Your task to perform on an android device: uninstall "Paramount+ | Peak Streaming" Image 0: 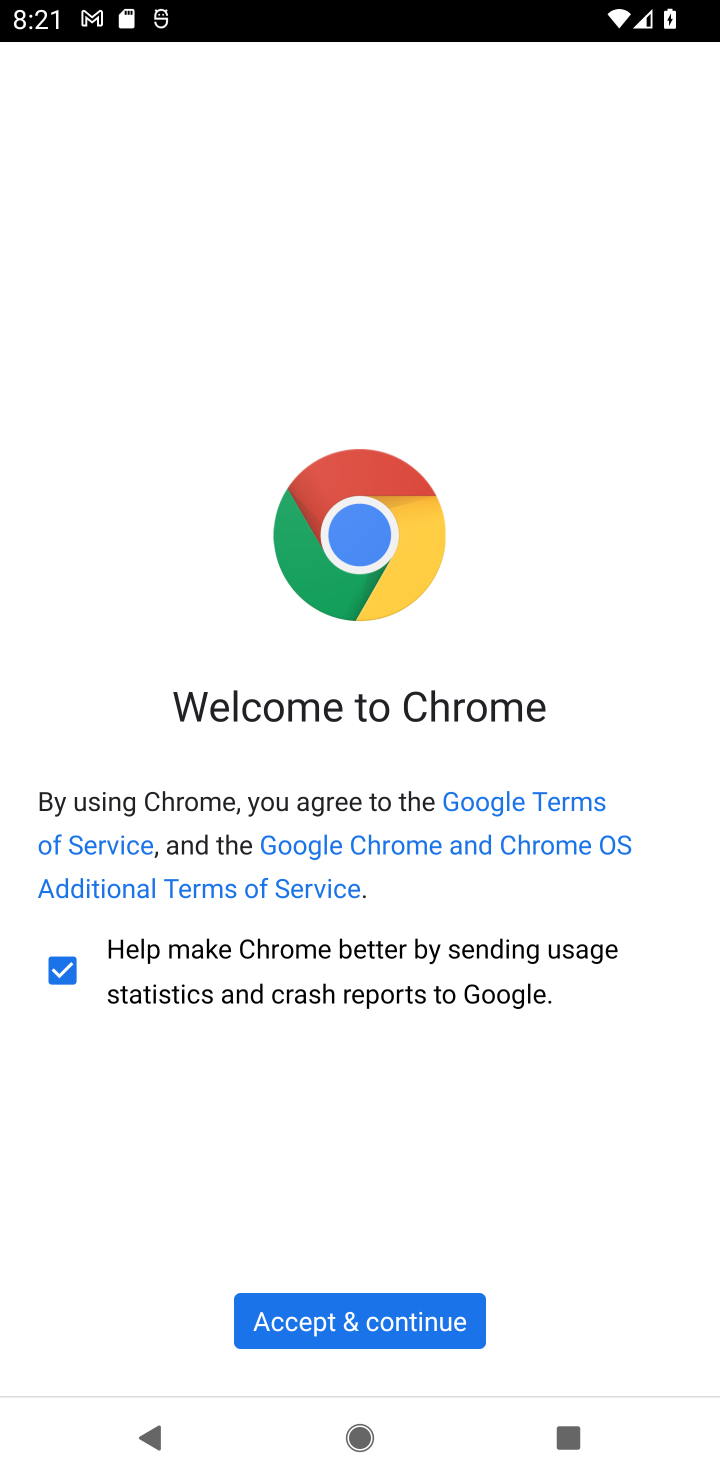
Step 0: press home button
Your task to perform on an android device: uninstall "Paramount+ | Peak Streaming" Image 1: 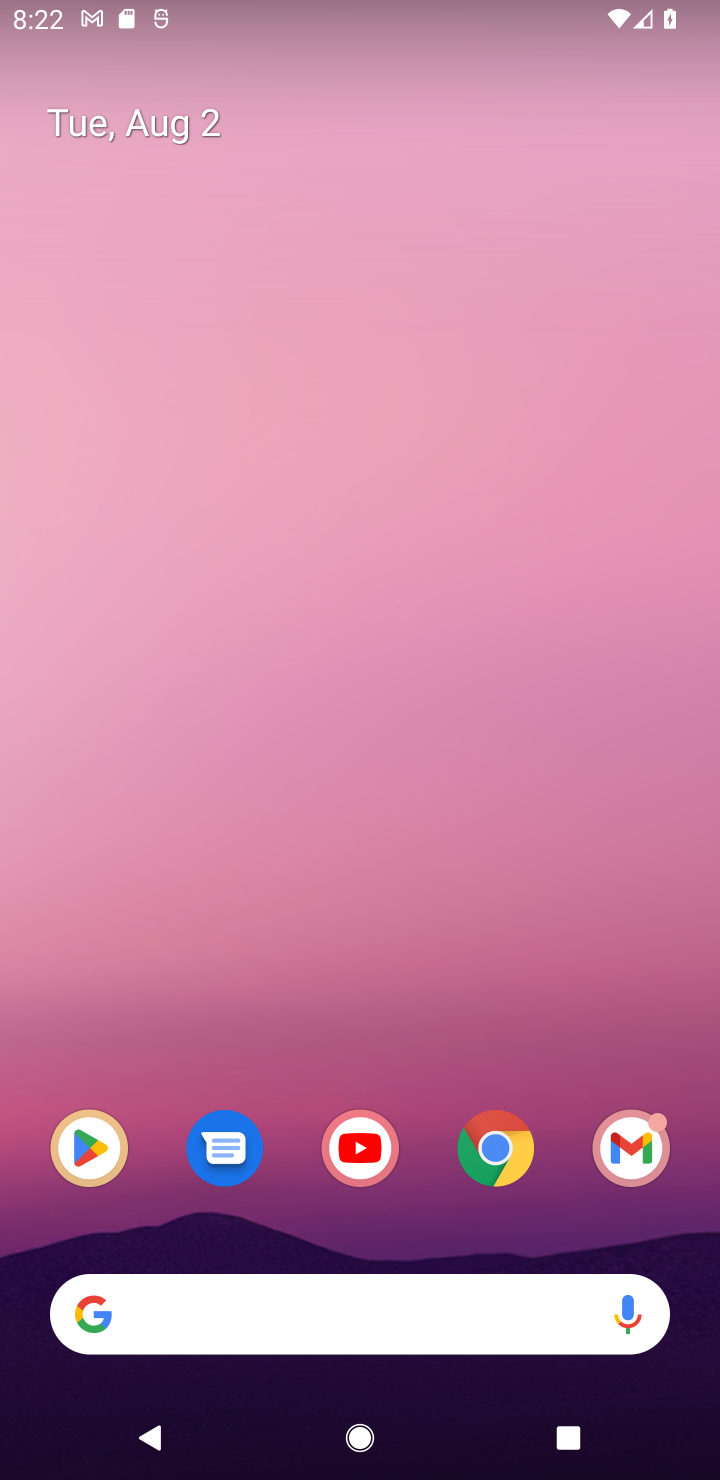
Step 1: drag from (536, 876) to (289, 0)
Your task to perform on an android device: uninstall "Paramount+ | Peak Streaming" Image 2: 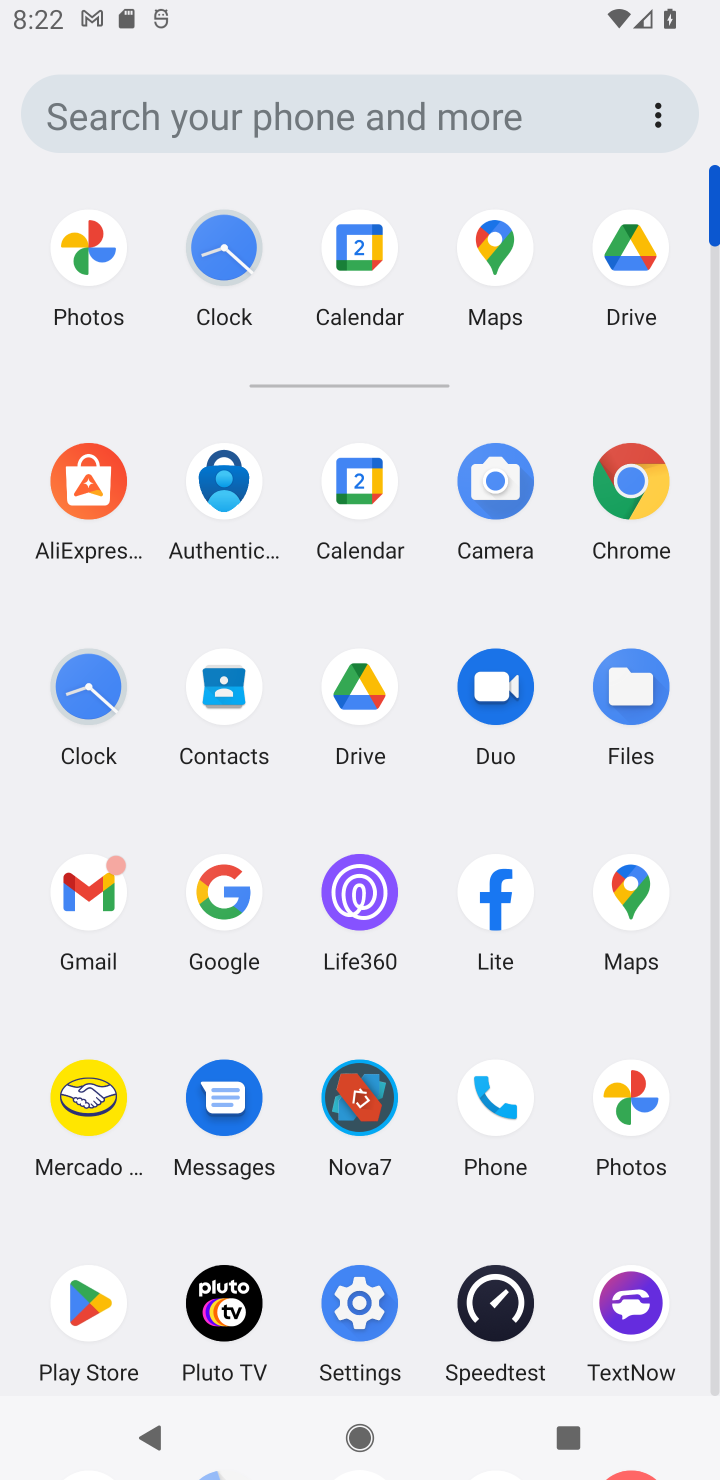
Step 2: click (102, 1314)
Your task to perform on an android device: uninstall "Paramount+ | Peak Streaming" Image 3: 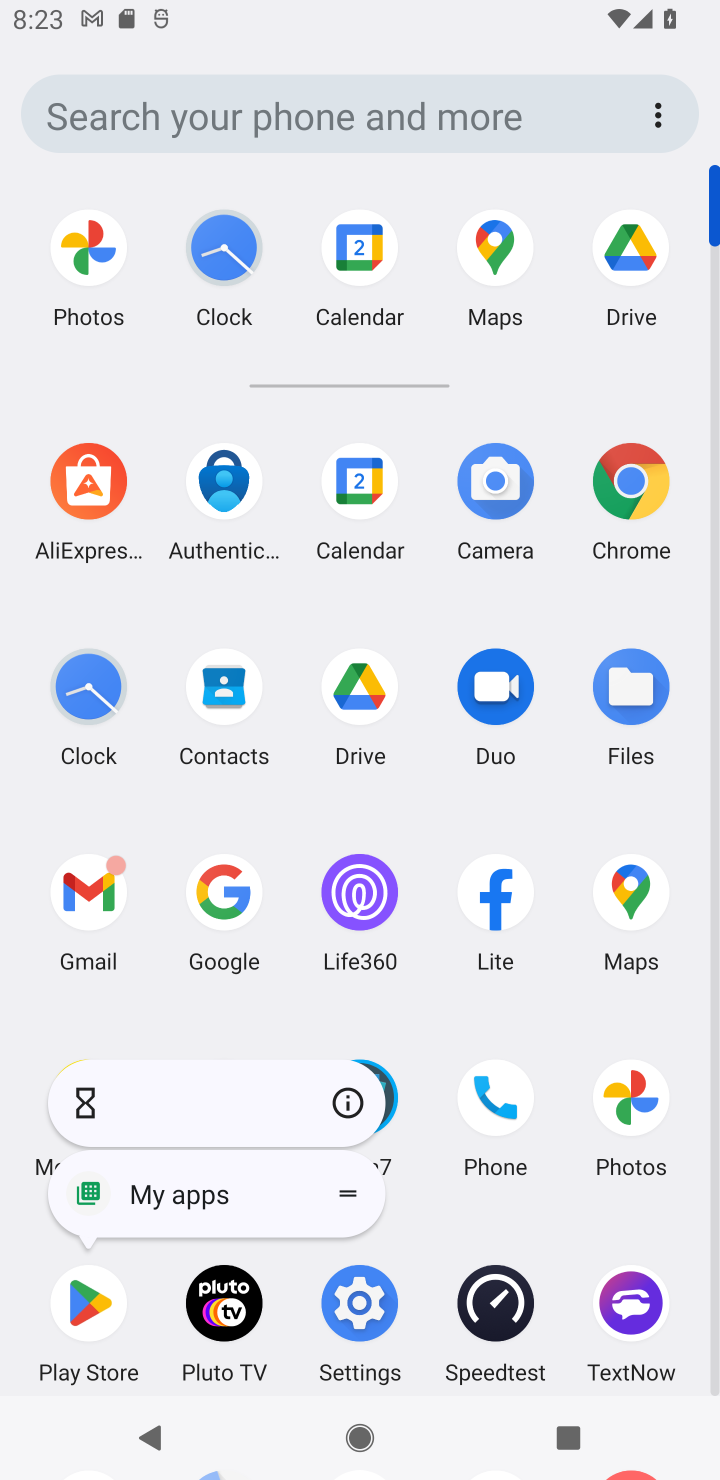
Step 3: click (79, 1303)
Your task to perform on an android device: uninstall "Paramount+ | Peak Streaming" Image 4: 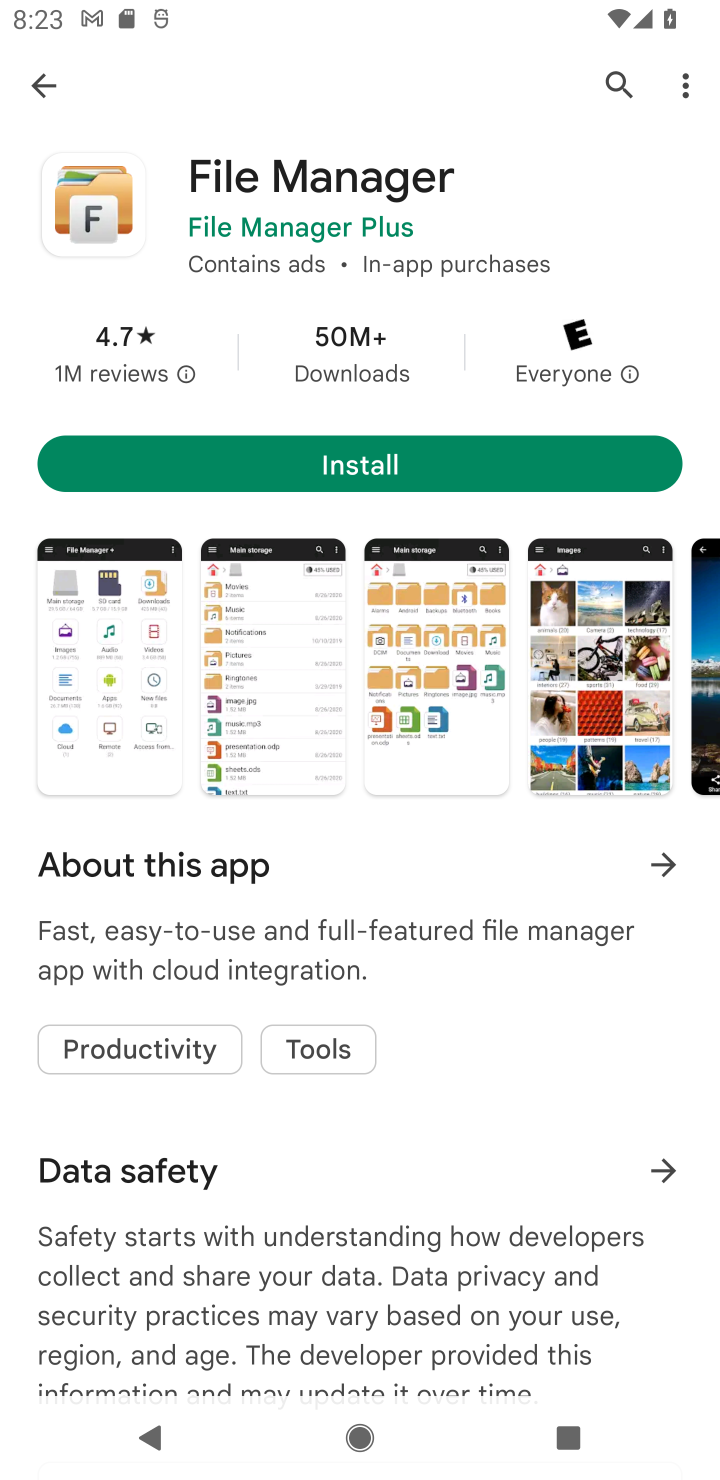
Step 4: press back button
Your task to perform on an android device: uninstall "Paramount+ | Peak Streaming" Image 5: 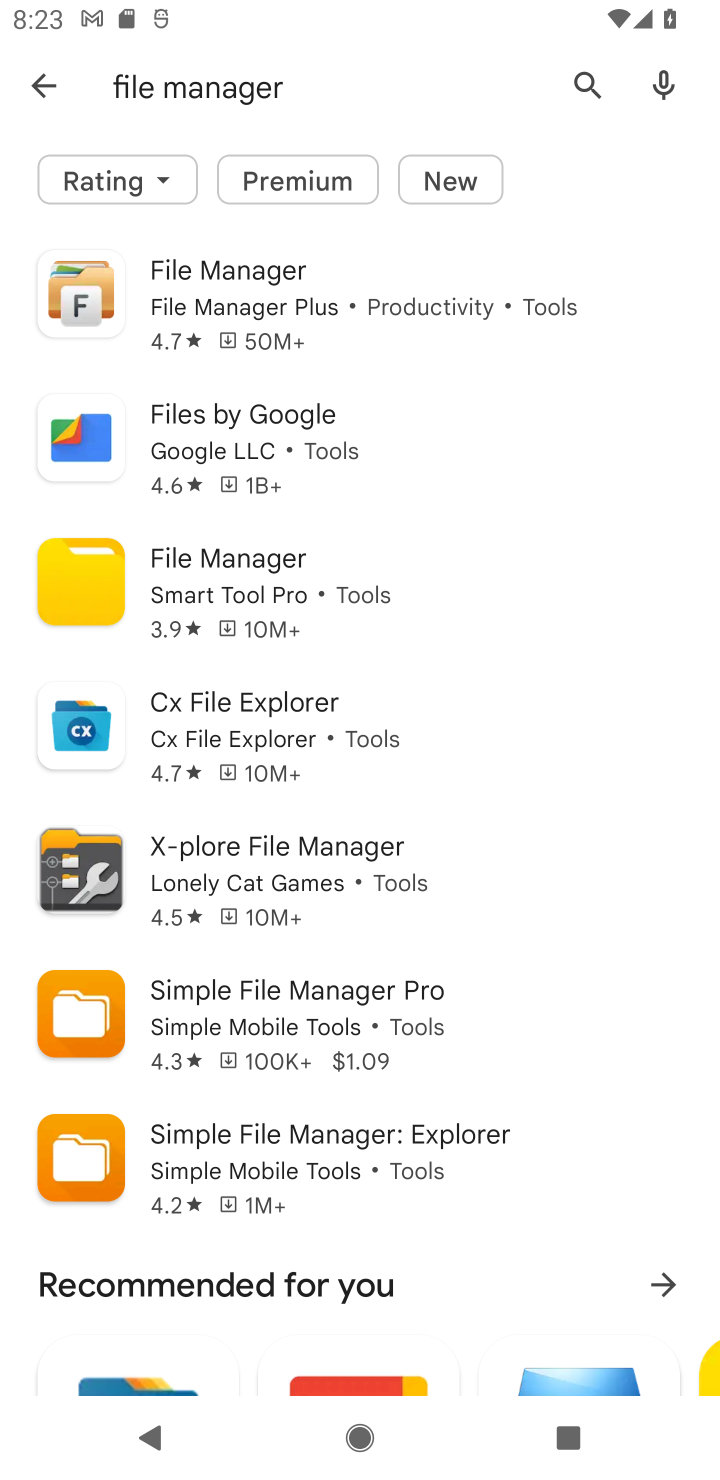
Step 5: press back button
Your task to perform on an android device: uninstall "Paramount+ | Peak Streaming" Image 6: 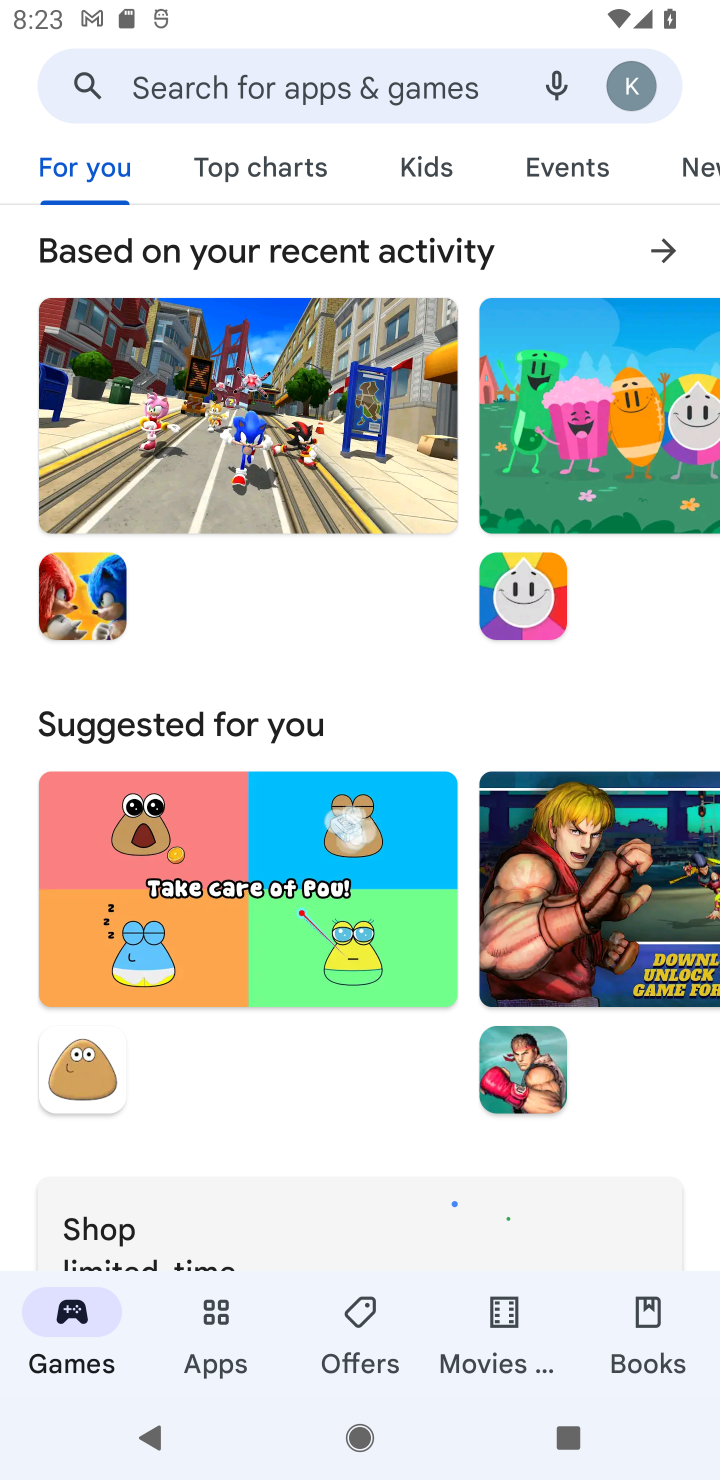
Step 6: click (198, 77)
Your task to perform on an android device: uninstall "Paramount+ | Peak Streaming" Image 7: 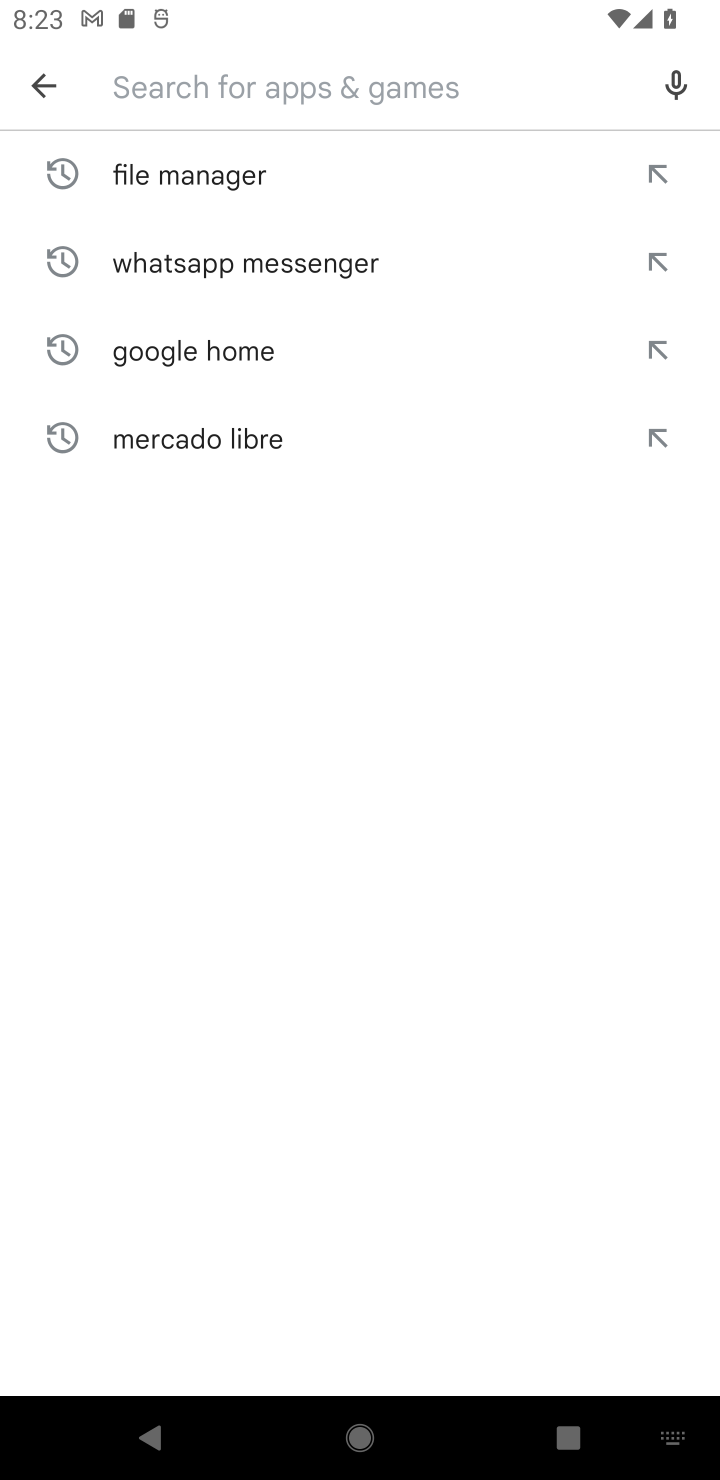
Step 7: type "Paramount+ | Peak Streaming"
Your task to perform on an android device: uninstall "Paramount+ | Peak Streaming" Image 8: 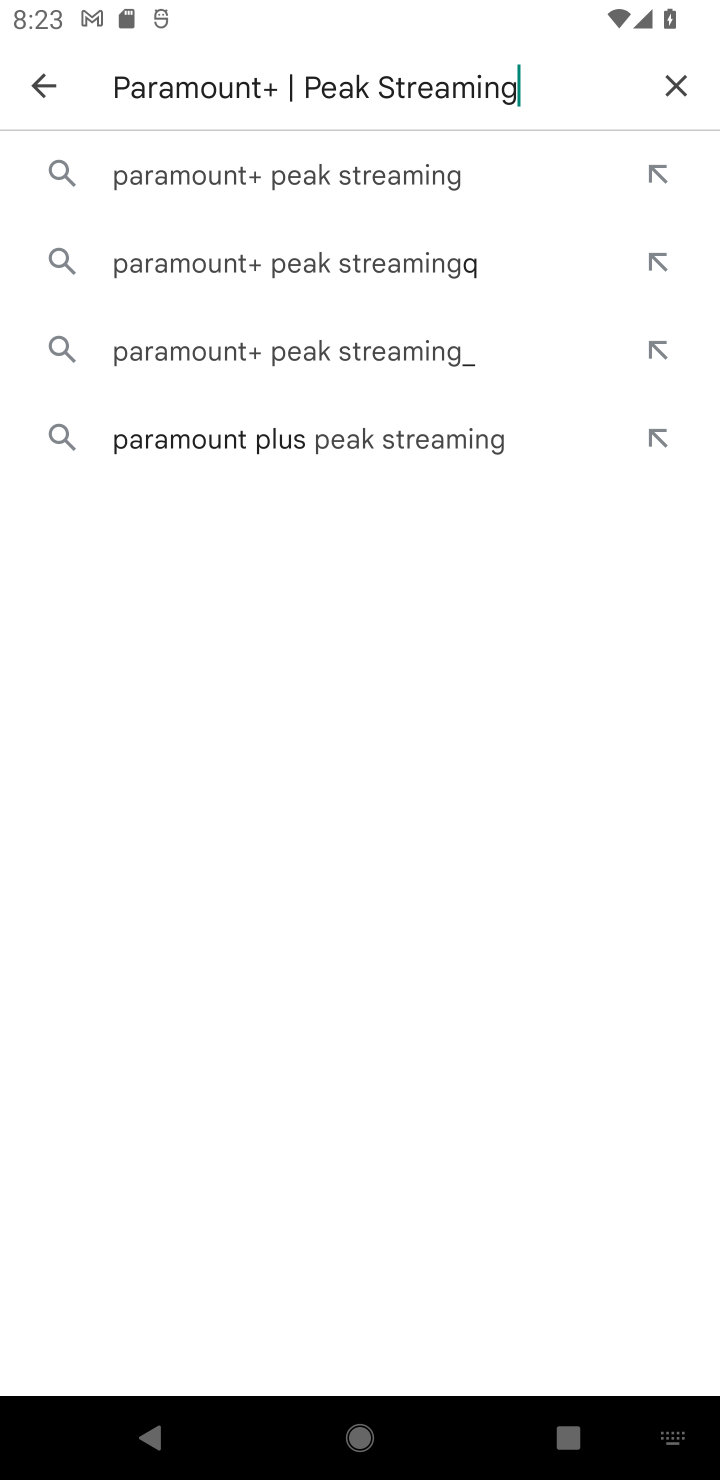
Step 8: click (256, 179)
Your task to perform on an android device: uninstall "Paramount+ | Peak Streaming" Image 9: 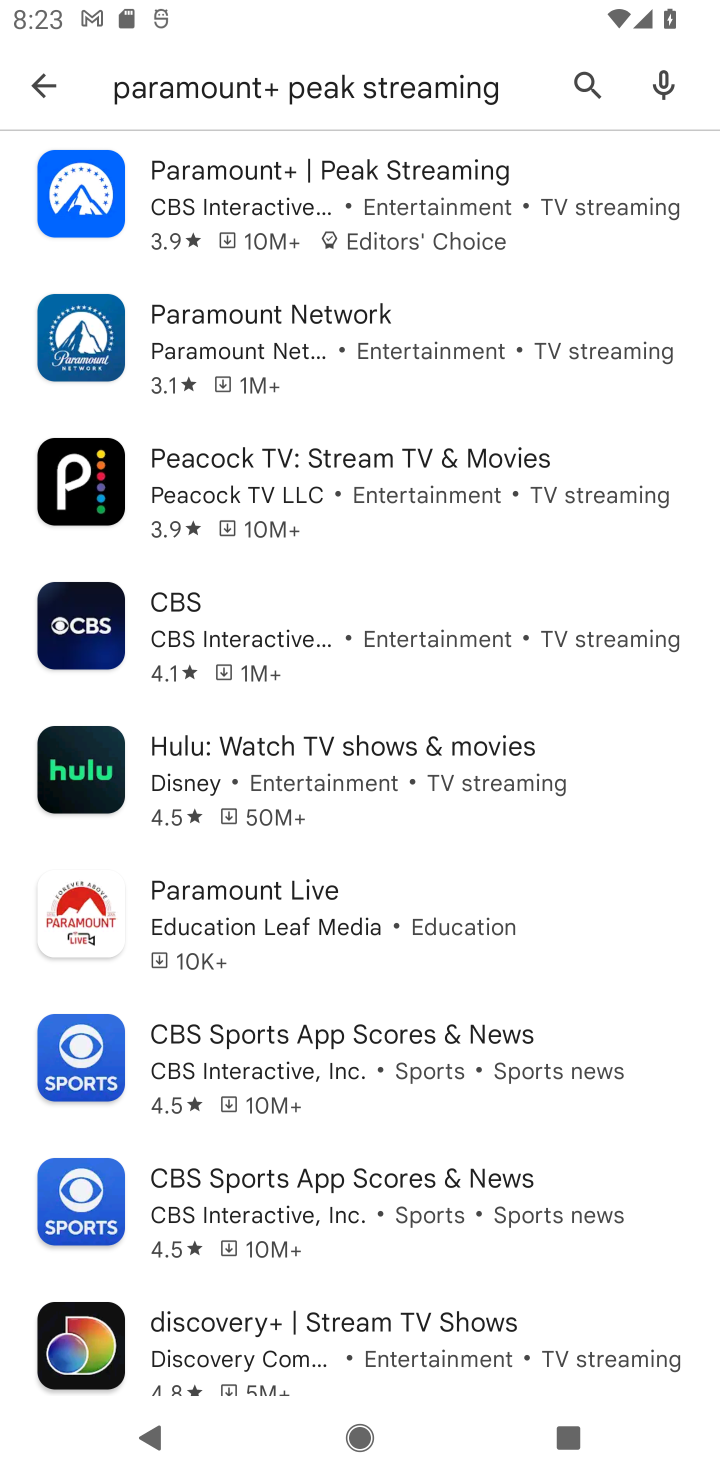
Step 9: task complete